Your task to perform on an android device: Go to accessibility settings Image 0: 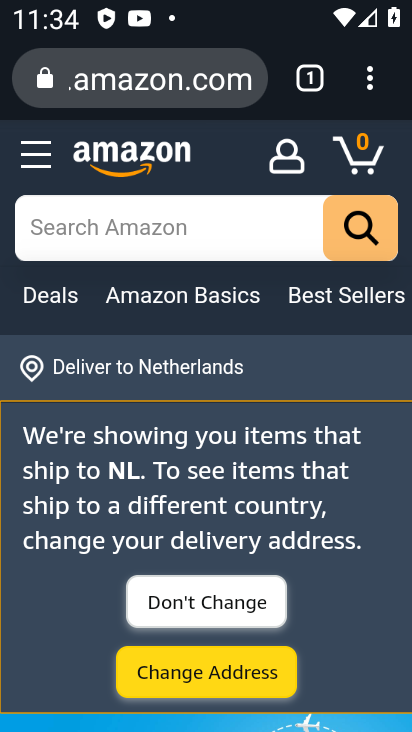
Step 0: press home button
Your task to perform on an android device: Go to accessibility settings Image 1: 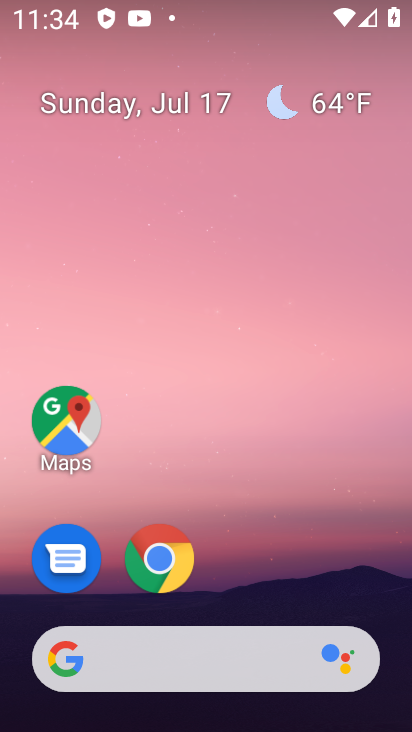
Step 1: drag from (328, 573) to (318, 150)
Your task to perform on an android device: Go to accessibility settings Image 2: 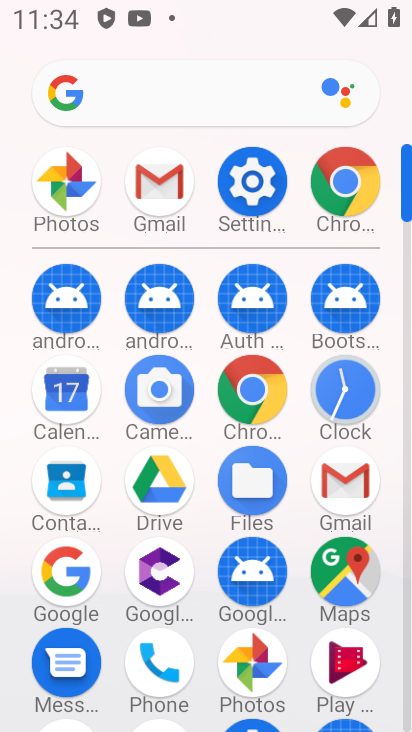
Step 2: click (249, 184)
Your task to perform on an android device: Go to accessibility settings Image 3: 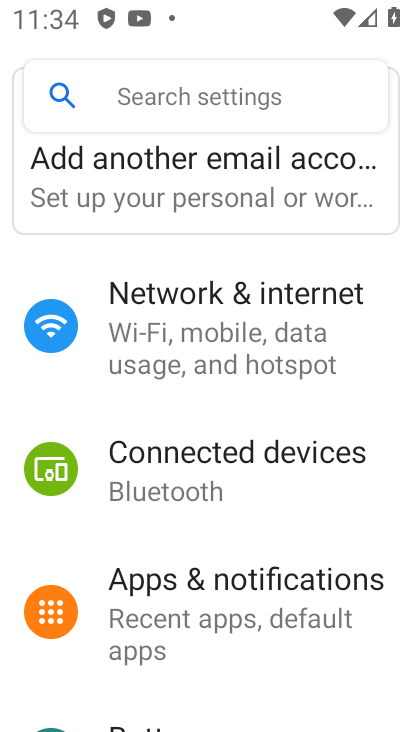
Step 3: drag from (366, 526) to (369, 389)
Your task to perform on an android device: Go to accessibility settings Image 4: 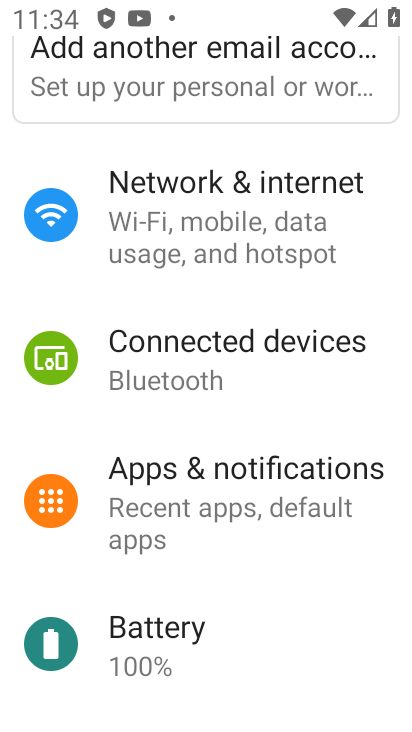
Step 4: drag from (367, 589) to (366, 346)
Your task to perform on an android device: Go to accessibility settings Image 5: 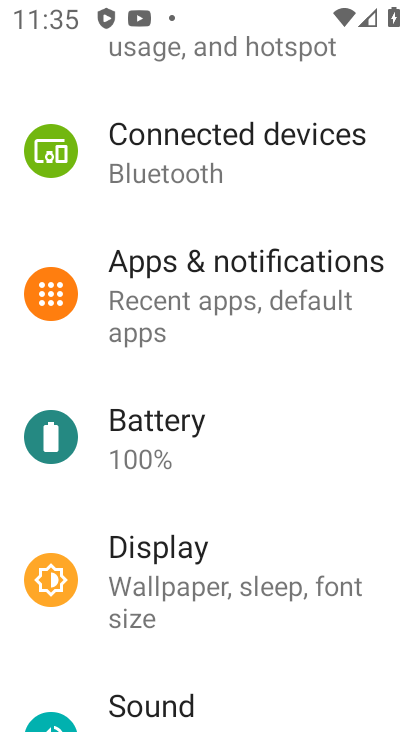
Step 5: drag from (349, 498) to (335, 354)
Your task to perform on an android device: Go to accessibility settings Image 6: 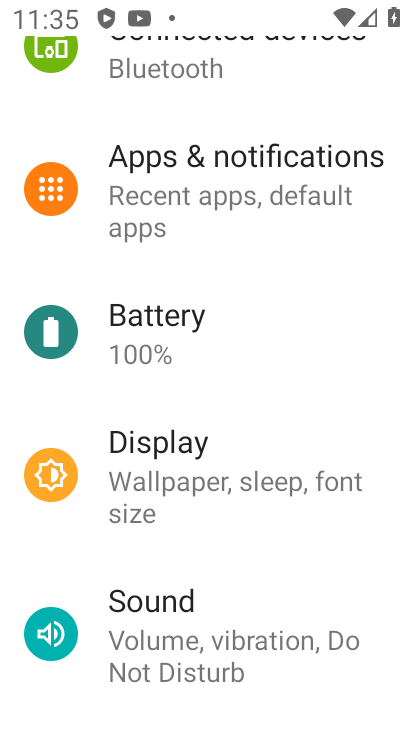
Step 6: drag from (378, 555) to (370, 400)
Your task to perform on an android device: Go to accessibility settings Image 7: 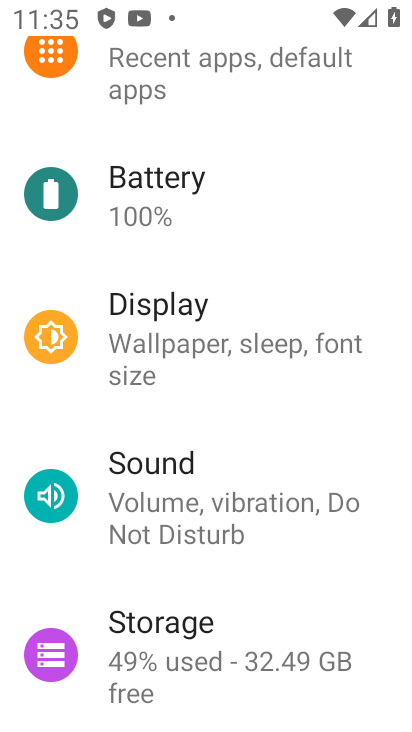
Step 7: drag from (346, 598) to (368, 449)
Your task to perform on an android device: Go to accessibility settings Image 8: 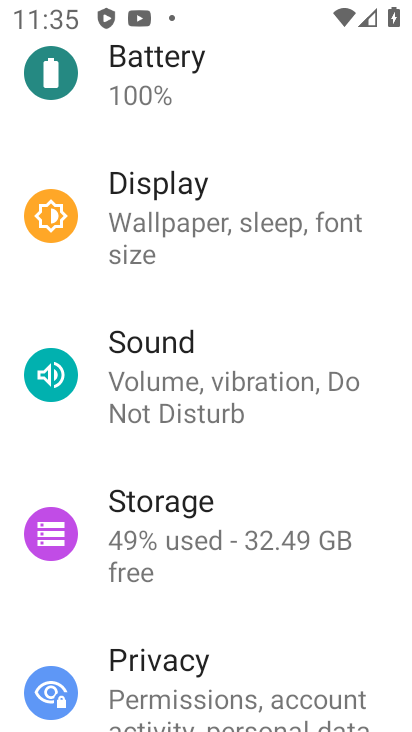
Step 8: drag from (328, 647) to (340, 521)
Your task to perform on an android device: Go to accessibility settings Image 9: 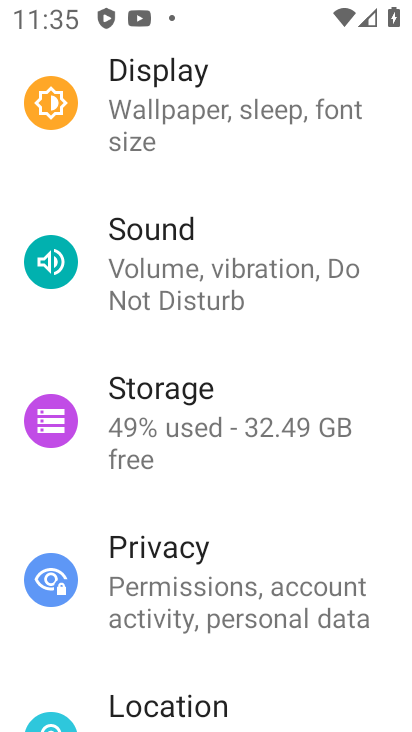
Step 9: drag from (309, 682) to (309, 394)
Your task to perform on an android device: Go to accessibility settings Image 10: 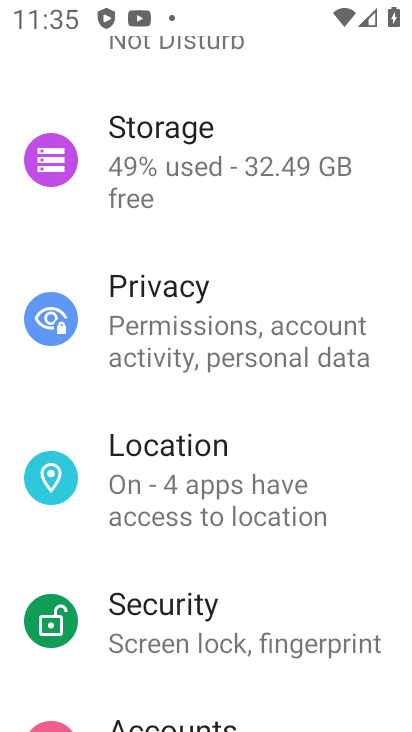
Step 10: drag from (366, 548) to (369, 372)
Your task to perform on an android device: Go to accessibility settings Image 11: 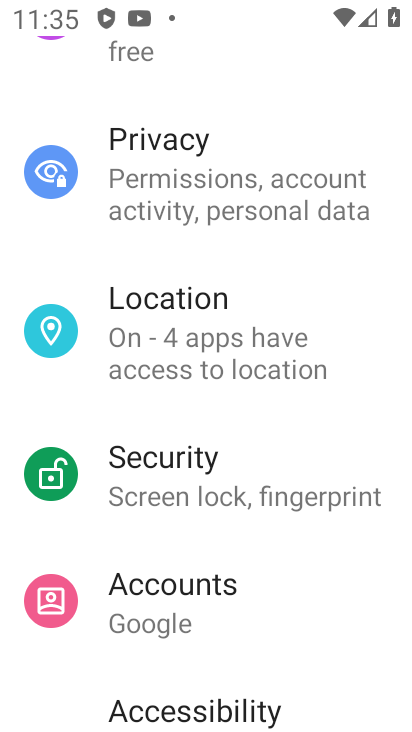
Step 11: drag from (352, 629) to (349, 391)
Your task to perform on an android device: Go to accessibility settings Image 12: 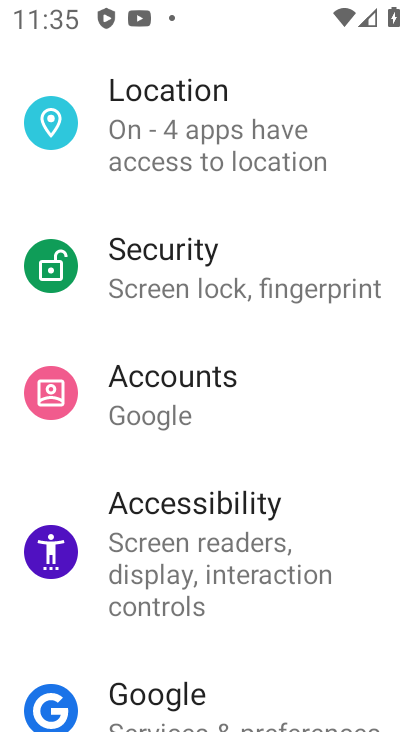
Step 12: drag from (364, 685) to (362, 439)
Your task to perform on an android device: Go to accessibility settings Image 13: 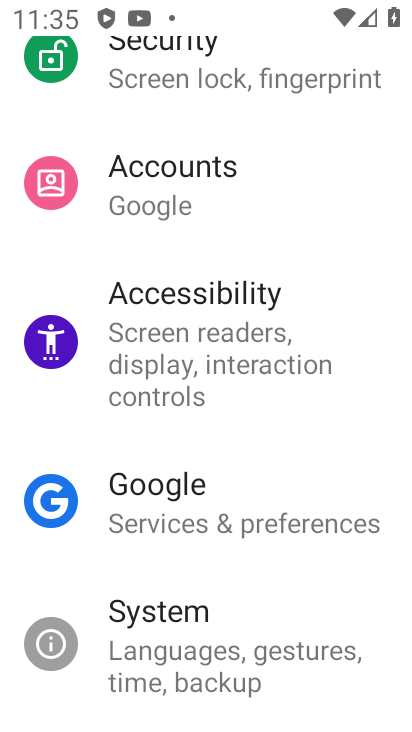
Step 13: click (249, 344)
Your task to perform on an android device: Go to accessibility settings Image 14: 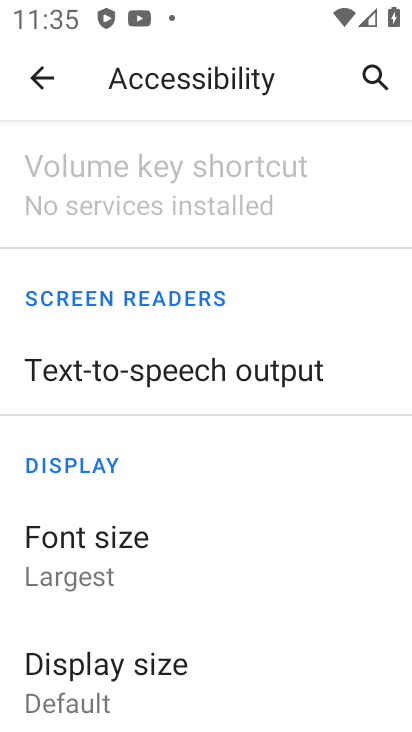
Step 14: task complete